Your task to perform on an android device: Show me the alarms in the clock app Image 0: 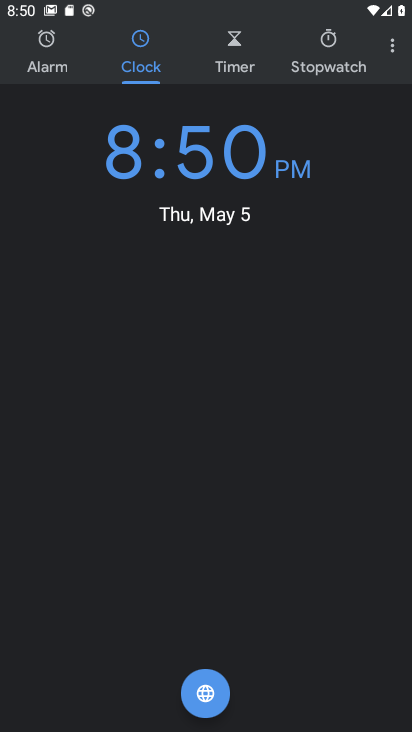
Step 0: click (51, 56)
Your task to perform on an android device: Show me the alarms in the clock app Image 1: 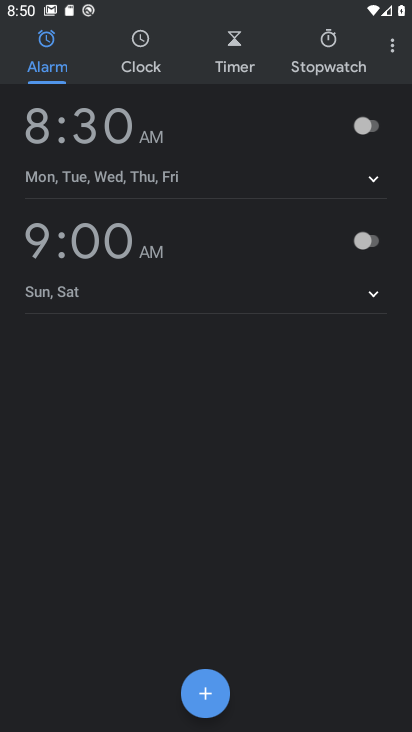
Step 1: click (89, 128)
Your task to perform on an android device: Show me the alarms in the clock app Image 2: 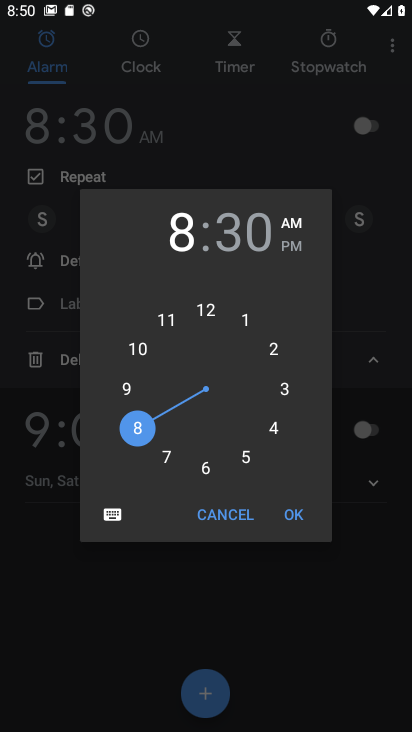
Step 2: task complete